Your task to perform on an android device: install app "Google Duo" Image 0: 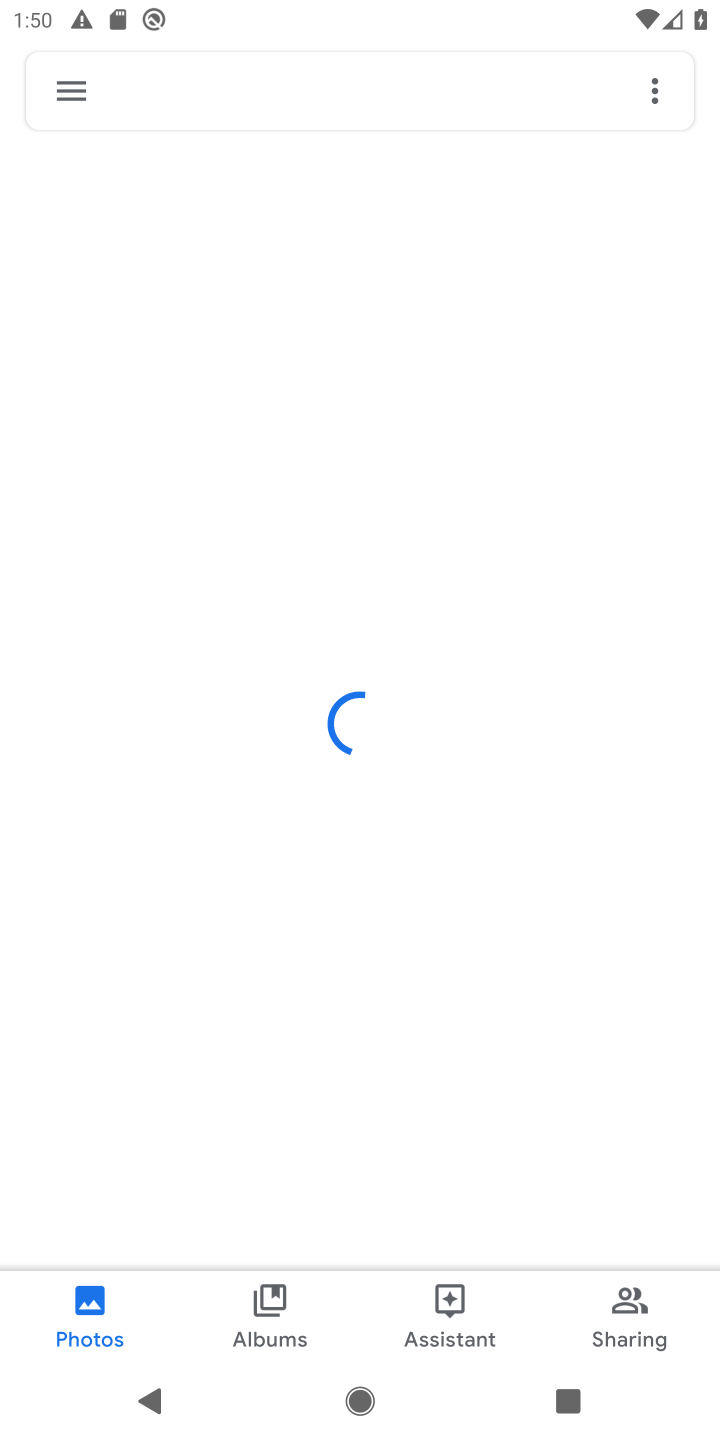
Step 0: press home button
Your task to perform on an android device: install app "Google Duo" Image 1: 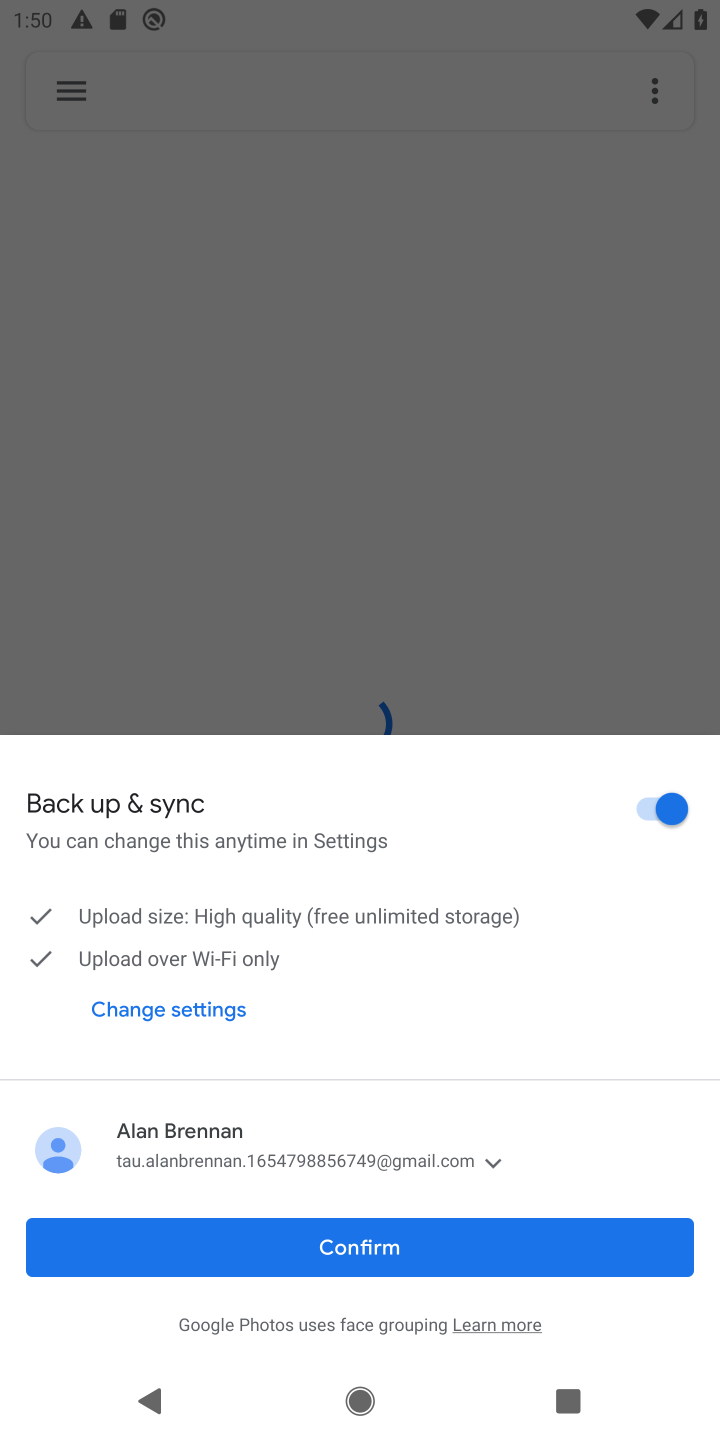
Step 1: press home button
Your task to perform on an android device: install app "Google Duo" Image 2: 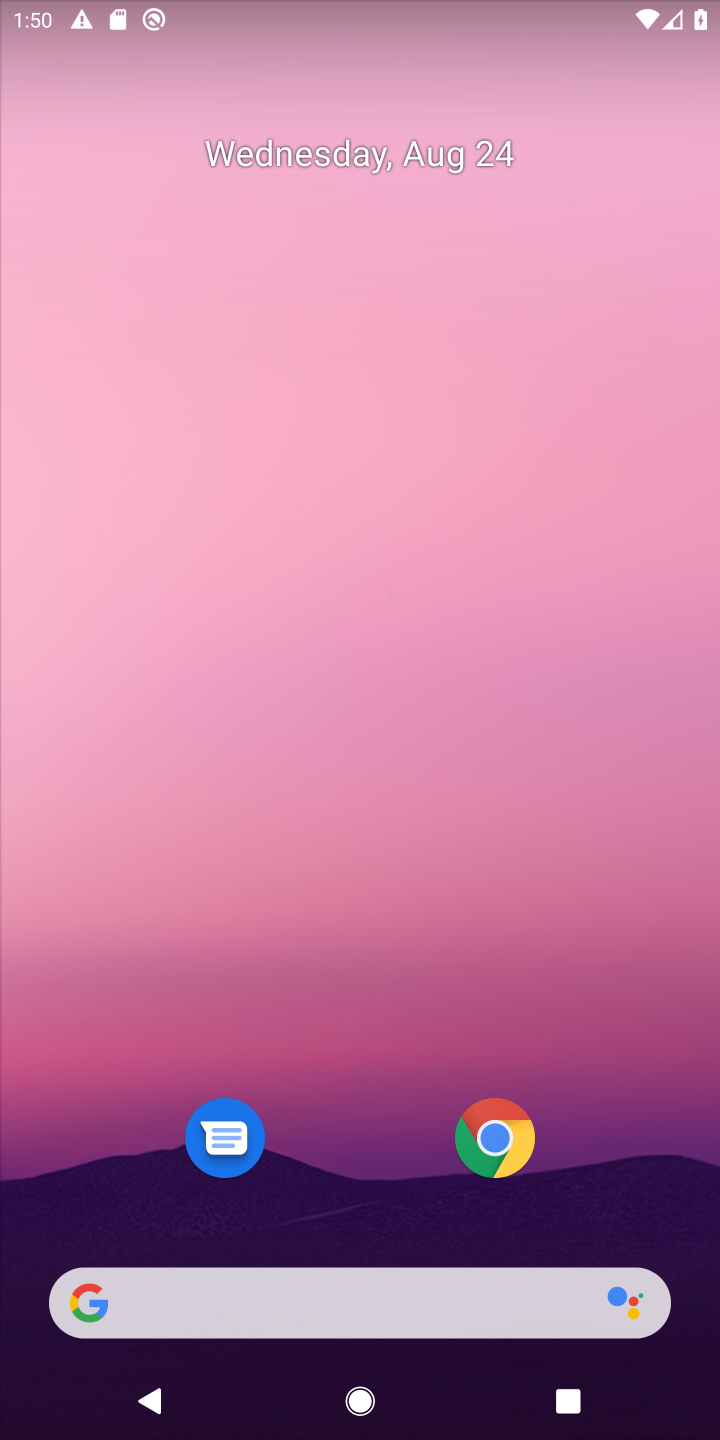
Step 2: drag from (380, 1221) to (377, 51)
Your task to perform on an android device: install app "Google Duo" Image 3: 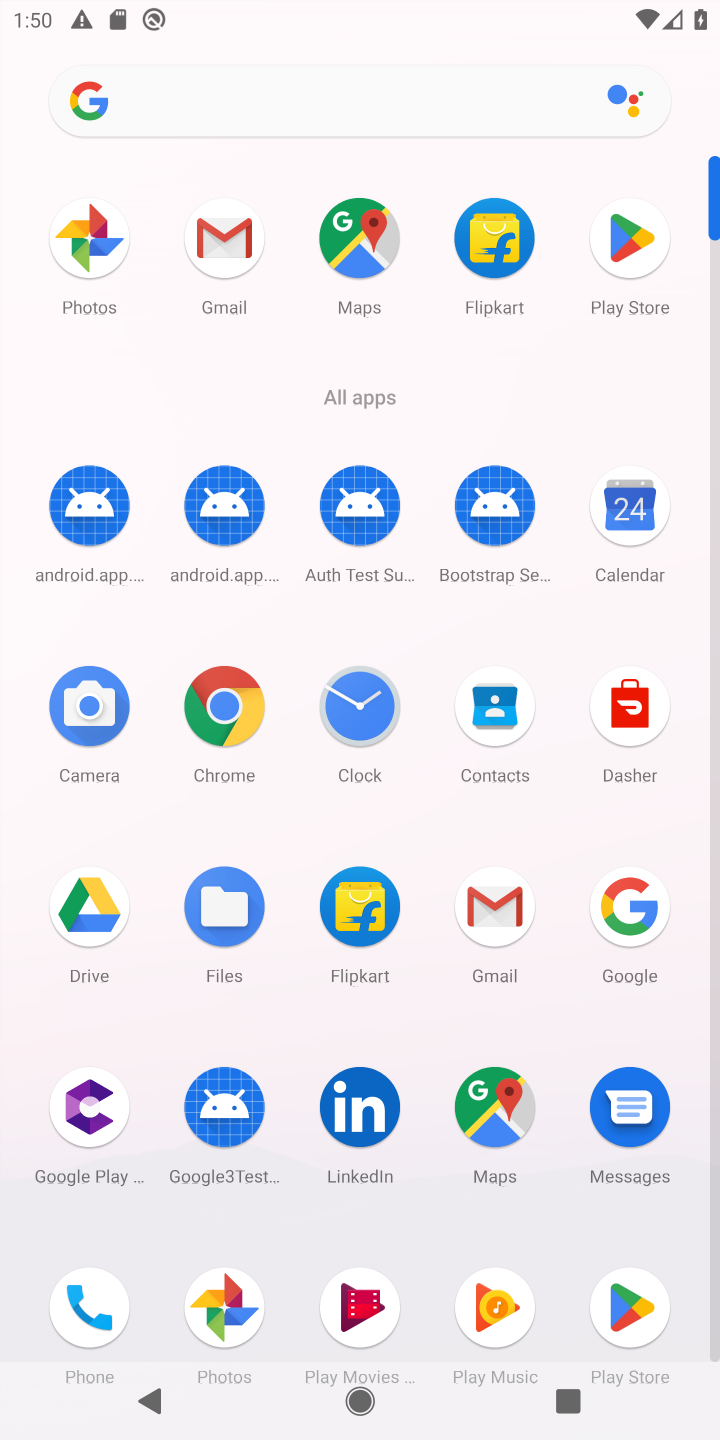
Step 3: click (640, 238)
Your task to perform on an android device: install app "Google Duo" Image 4: 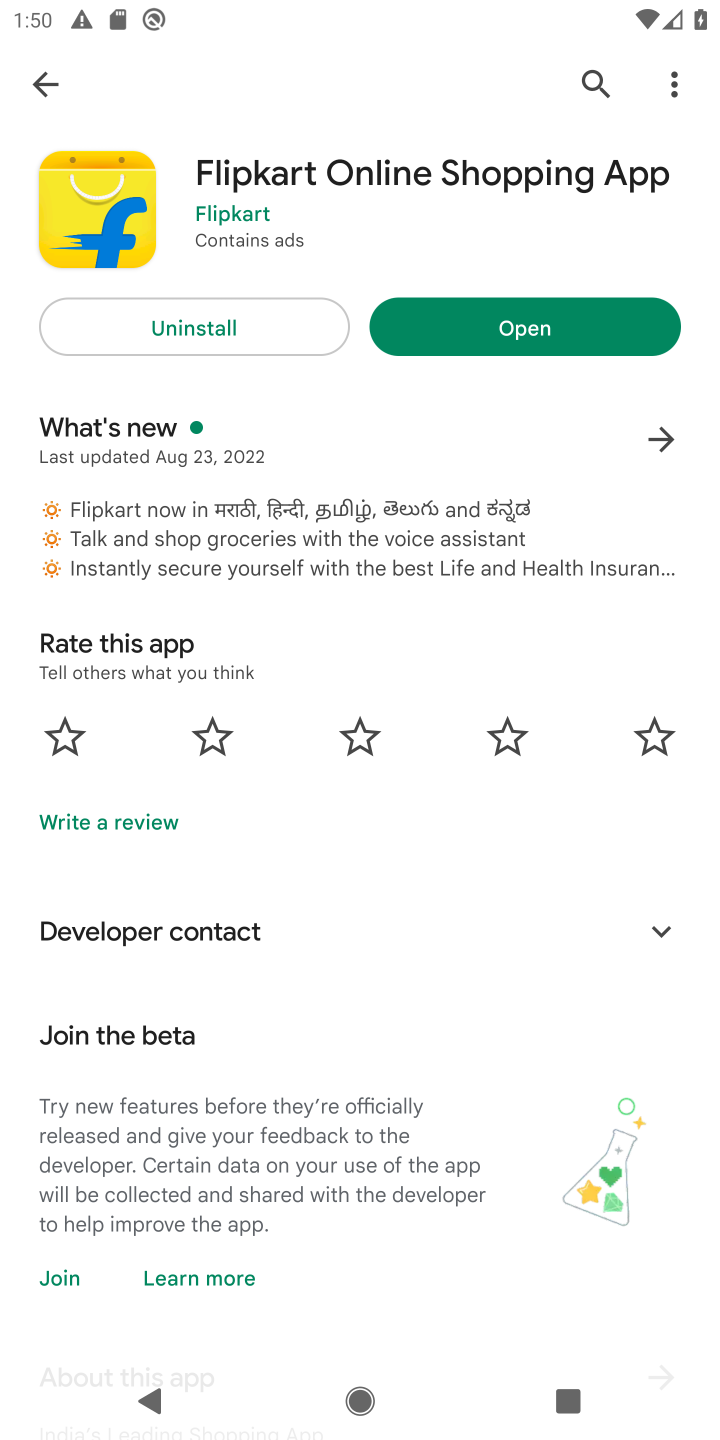
Step 4: click (591, 79)
Your task to perform on an android device: install app "Google Duo" Image 5: 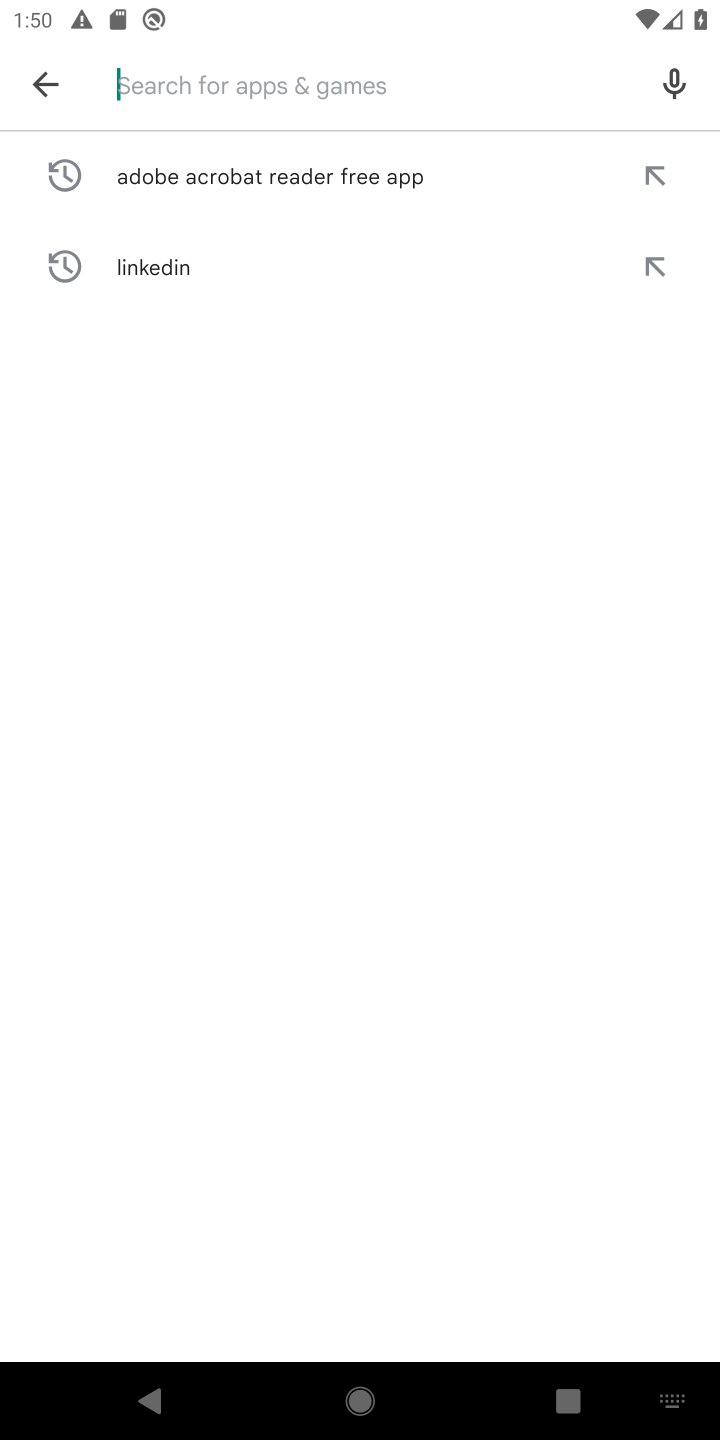
Step 5: type "Google Duo"
Your task to perform on an android device: install app "Google Duo" Image 6: 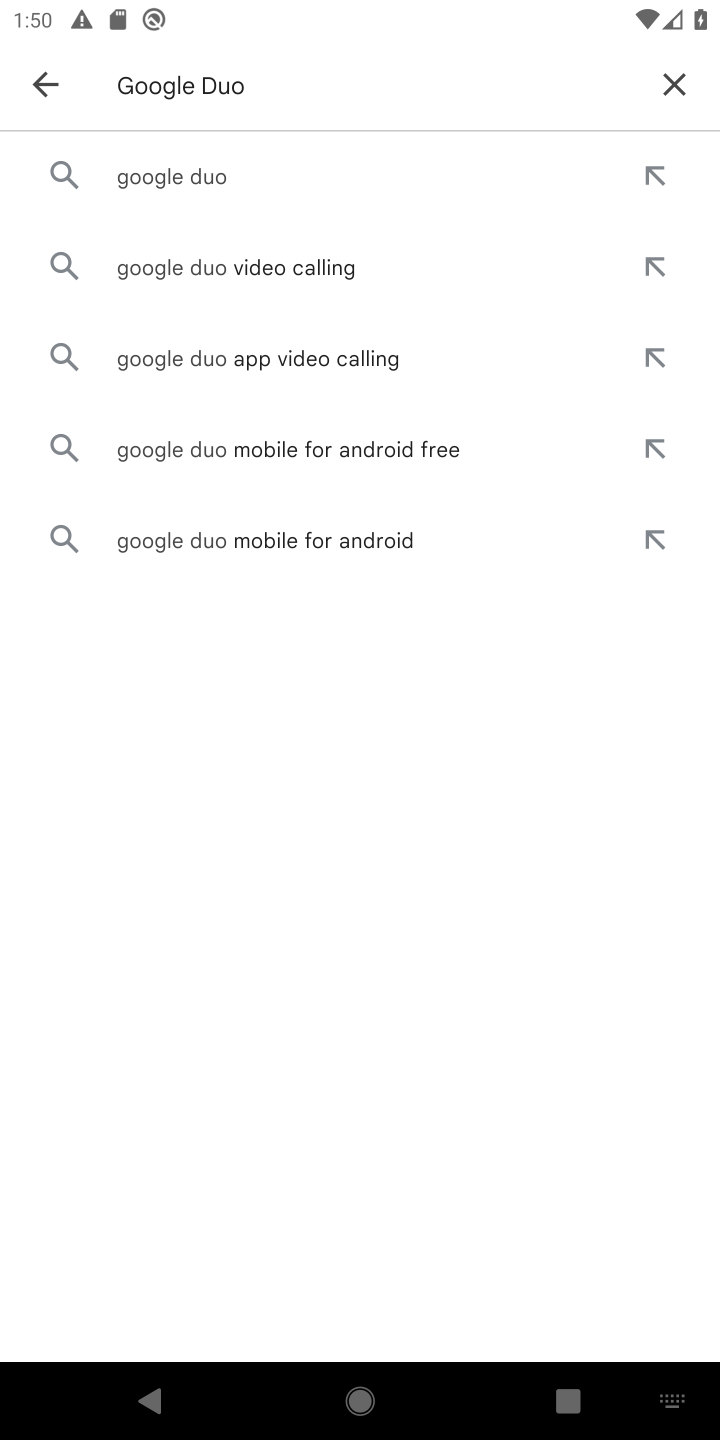
Step 6: click (206, 172)
Your task to perform on an android device: install app "Google Duo" Image 7: 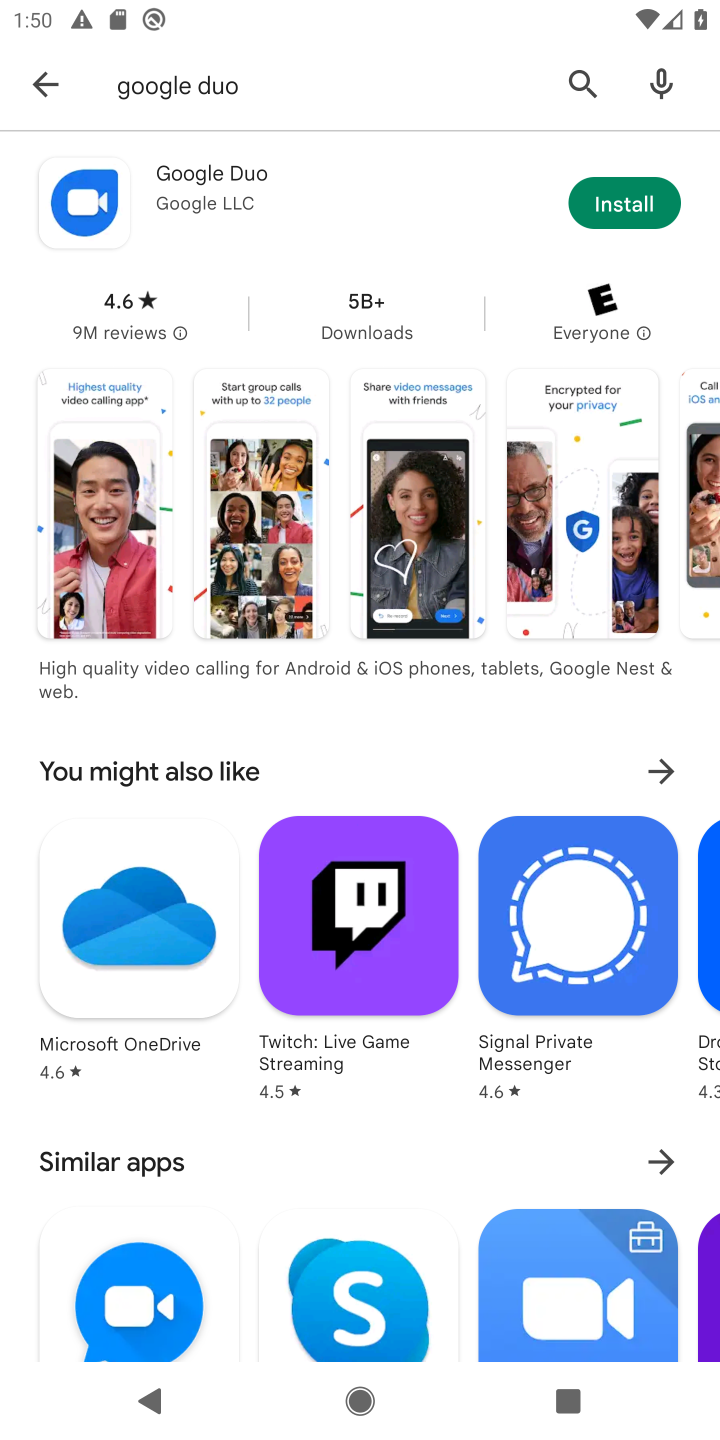
Step 7: click (638, 196)
Your task to perform on an android device: install app "Google Duo" Image 8: 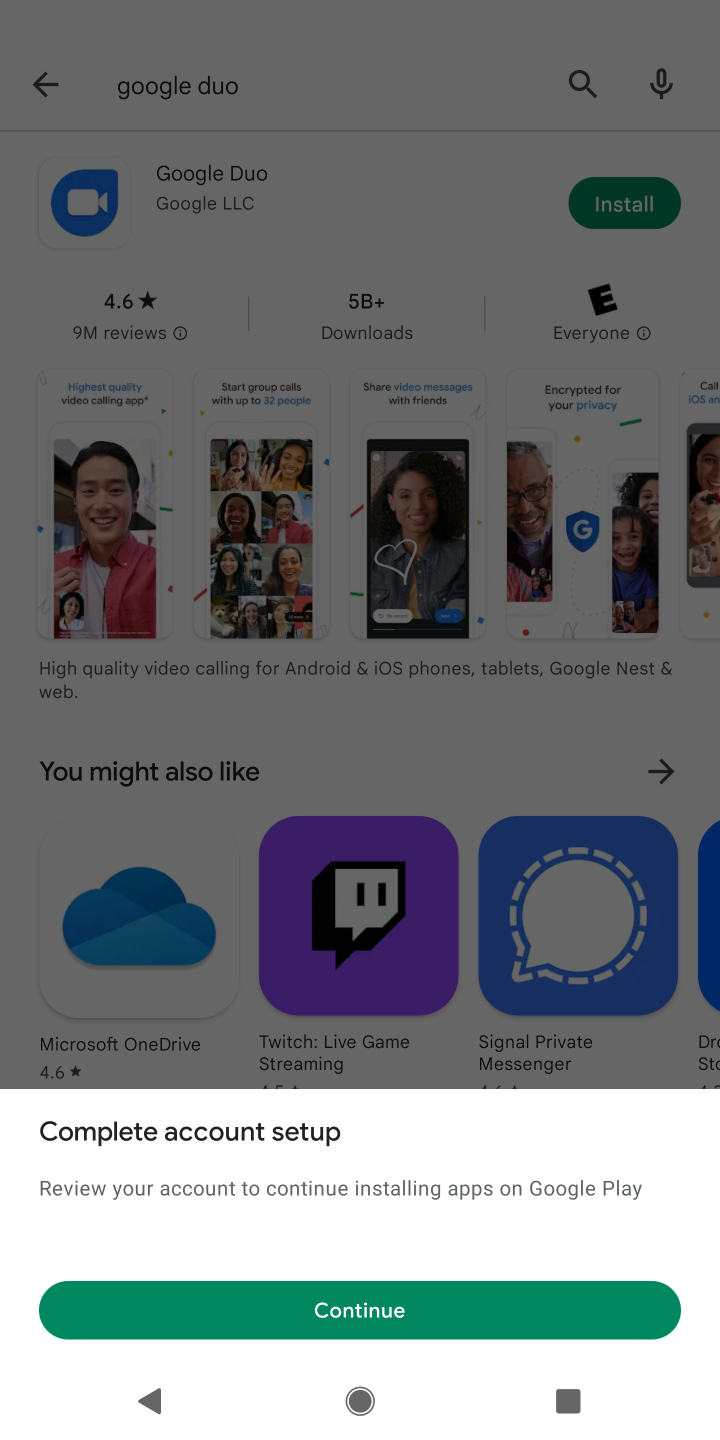
Step 8: click (380, 1305)
Your task to perform on an android device: install app "Google Duo" Image 9: 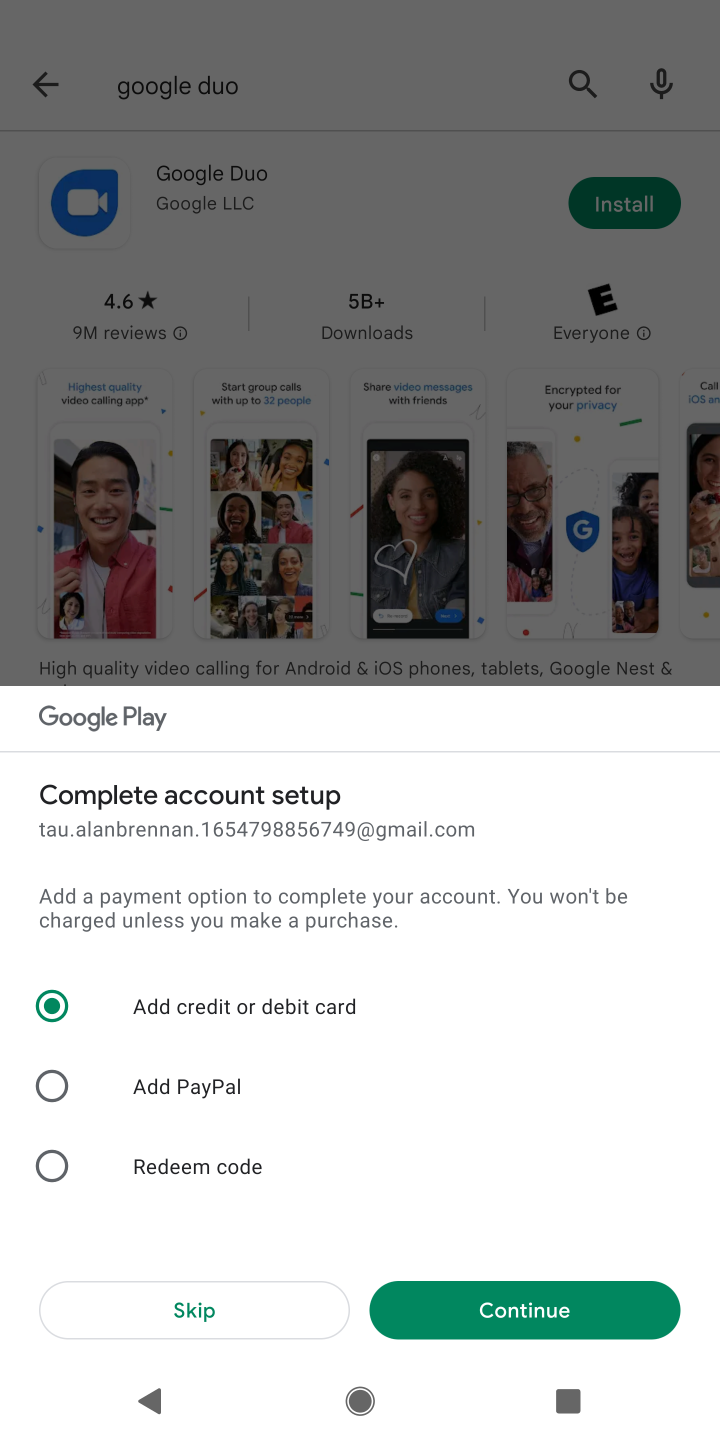
Step 9: click (170, 1306)
Your task to perform on an android device: install app "Google Duo" Image 10: 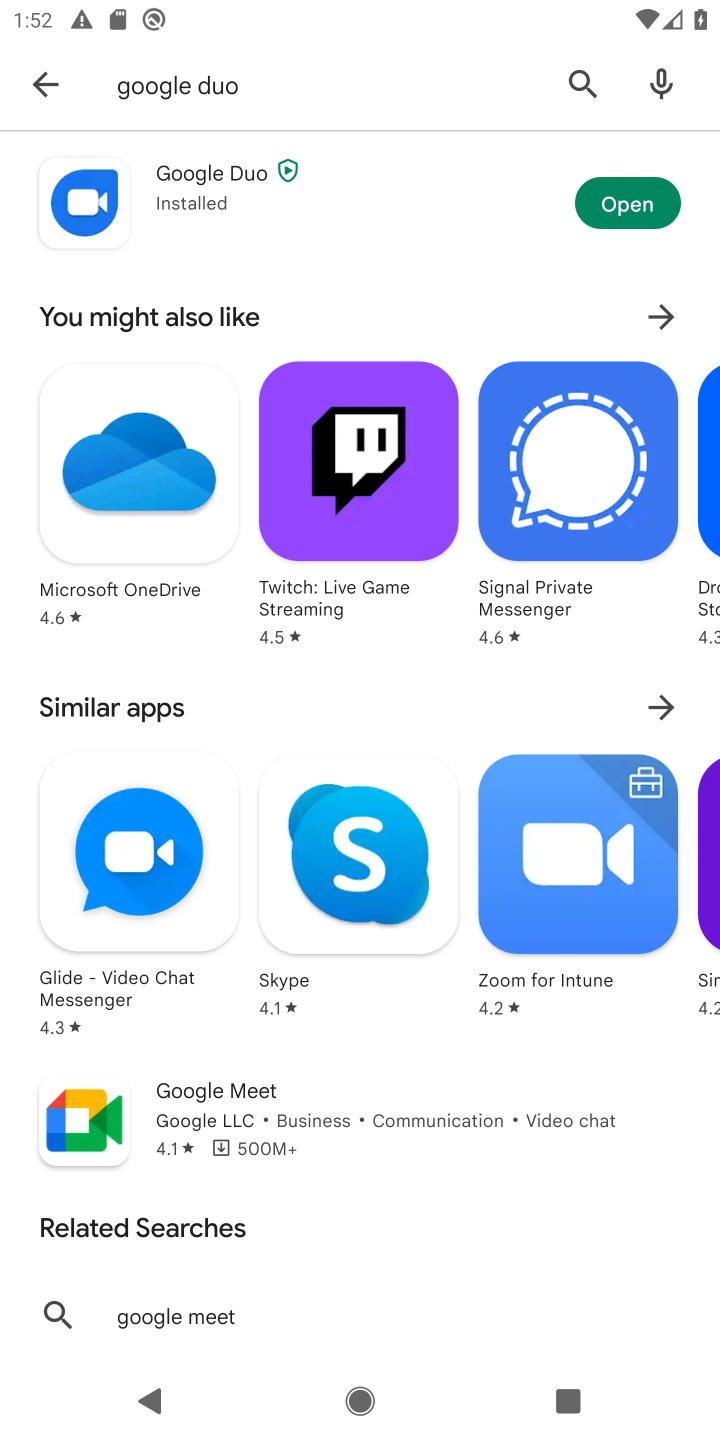
Step 10: task complete